Your task to perform on an android device: When is my next meeting? Image 0: 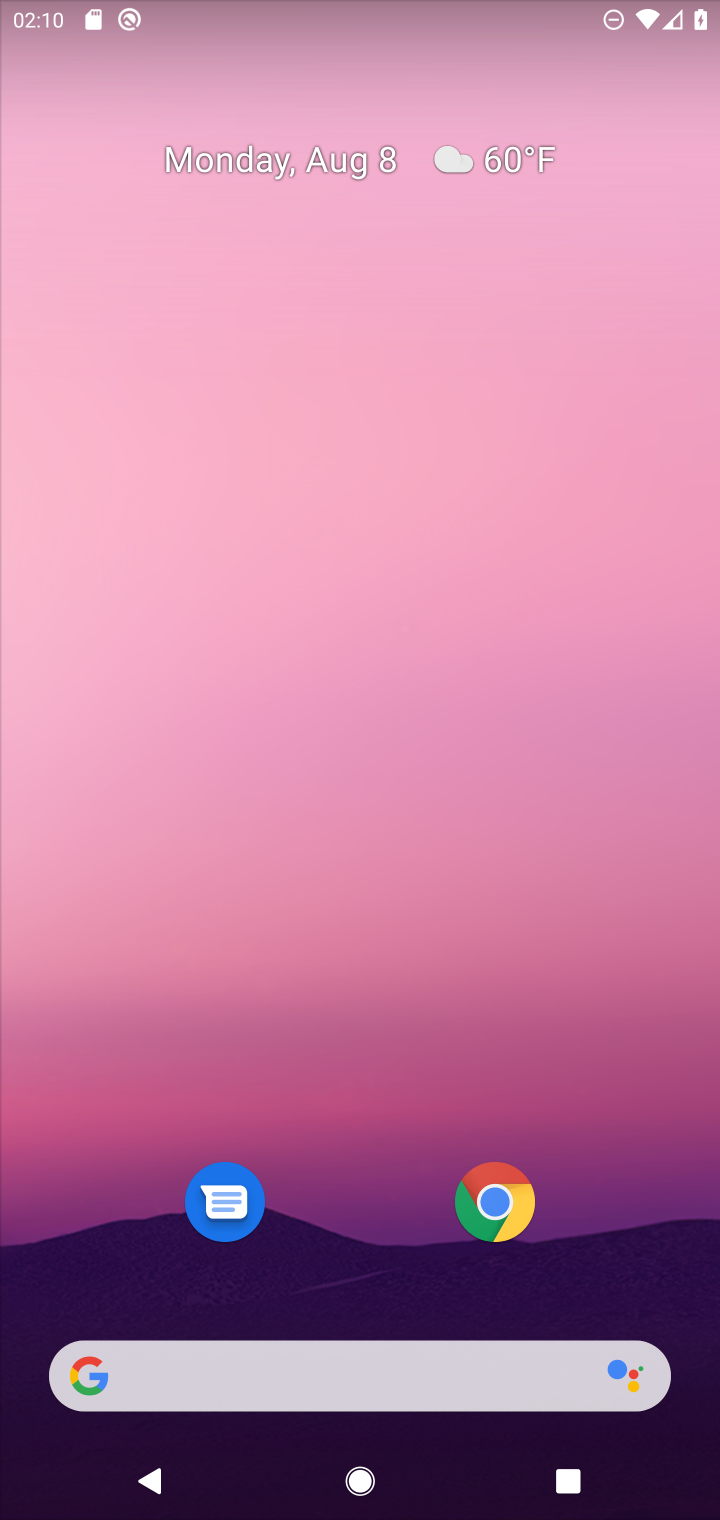
Step 0: press home button
Your task to perform on an android device: When is my next meeting? Image 1: 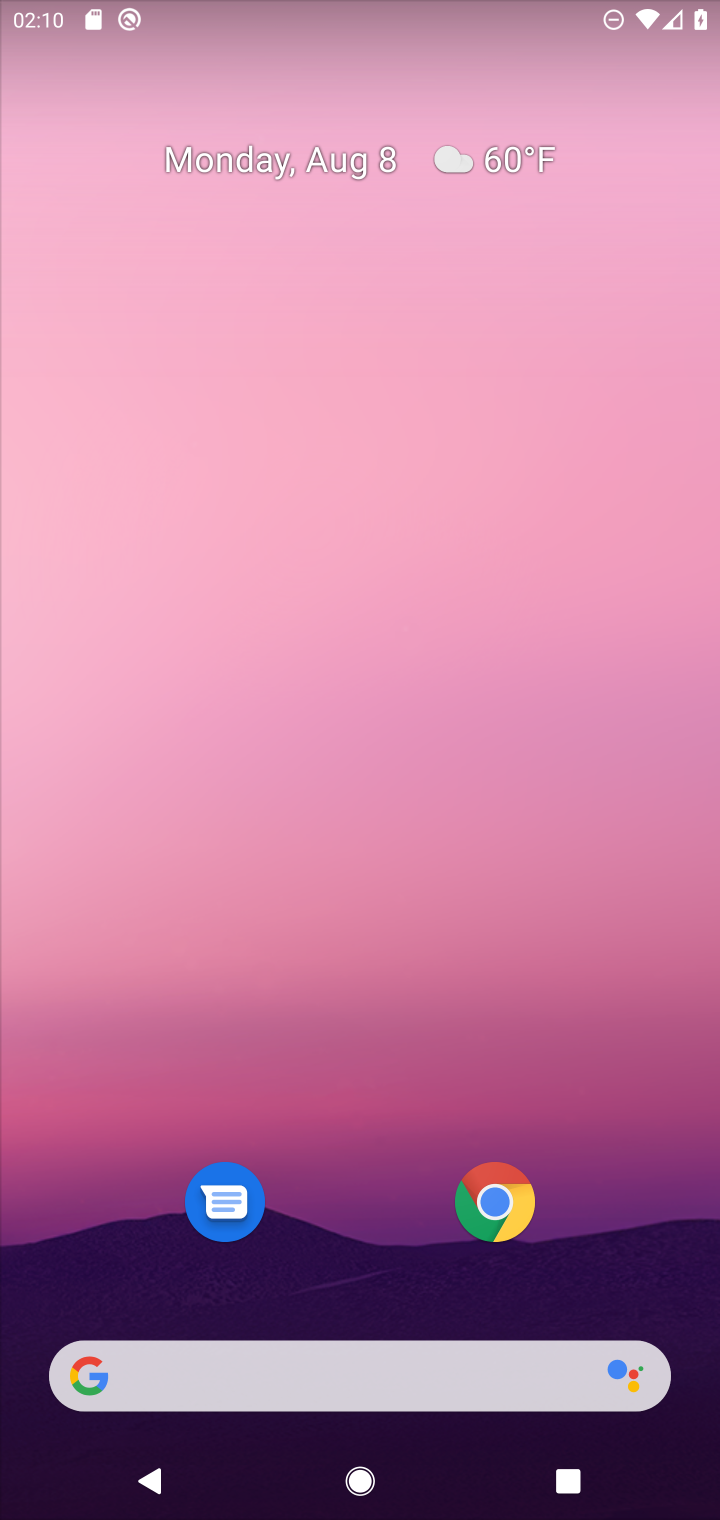
Step 1: drag from (602, 1266) to (630, 342)
Your task to perform on an android device: When is my next meeting? Image 2: 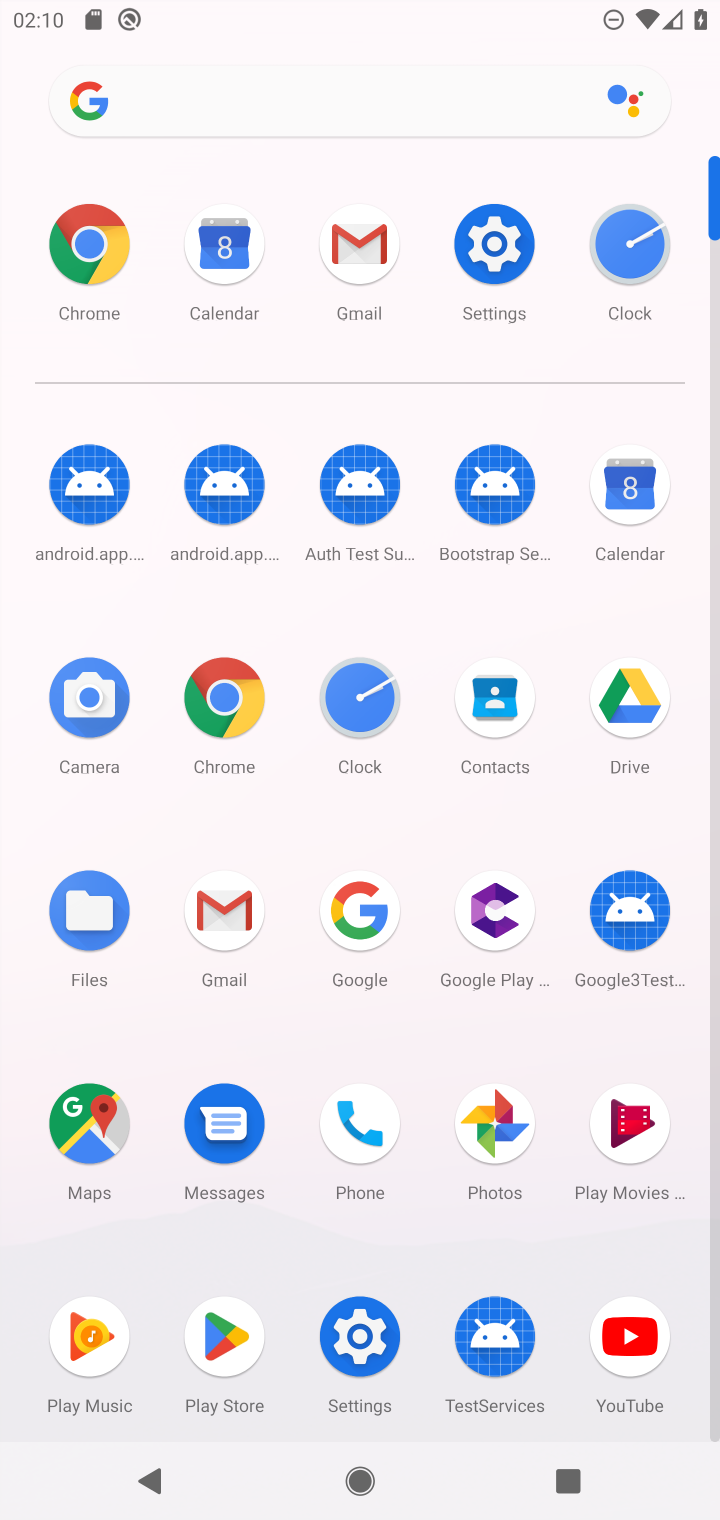
Step 2: click (626, 484)
Your task to perform on an android device: When is my next meeting? Image 3: 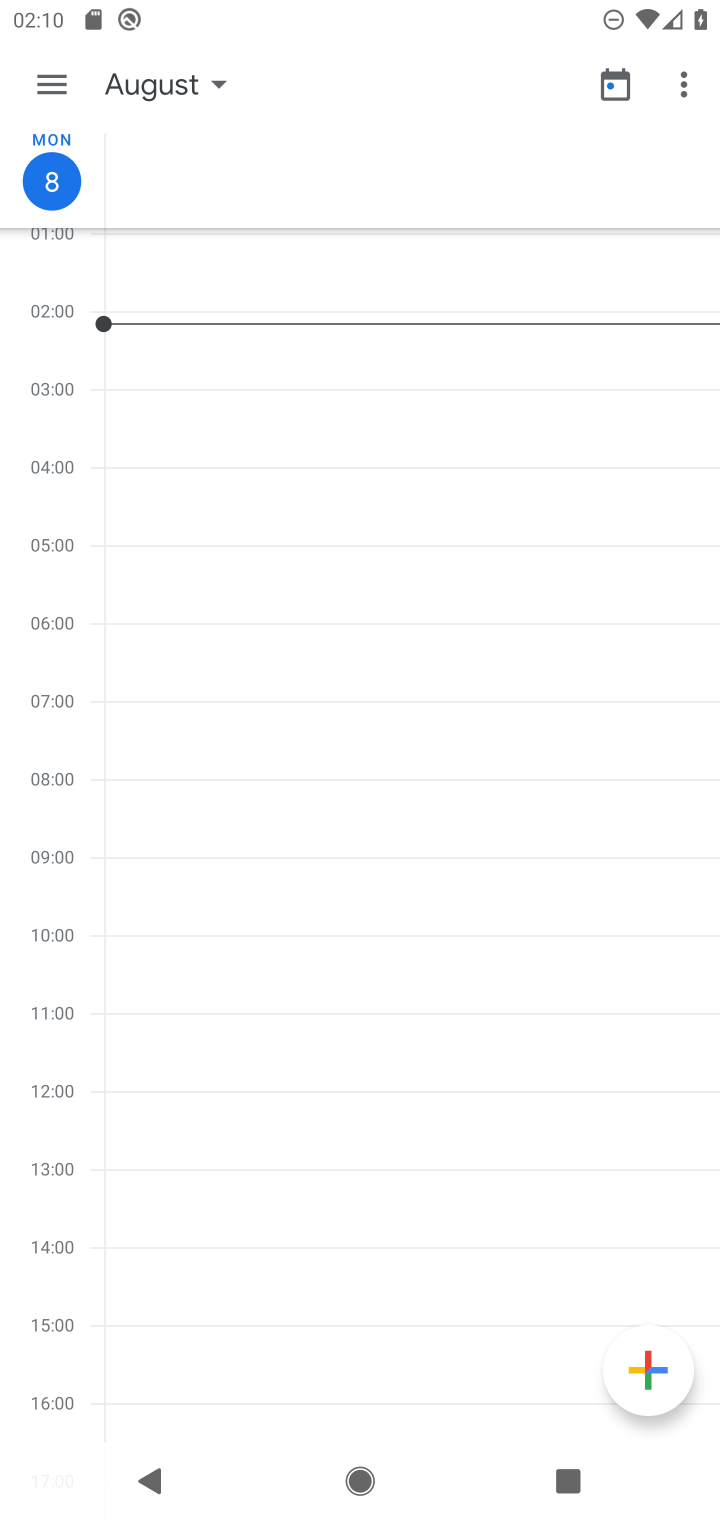
Step 3: click (39, 82)
Your task to perform on an android device: When is my next meeting? Image 4: 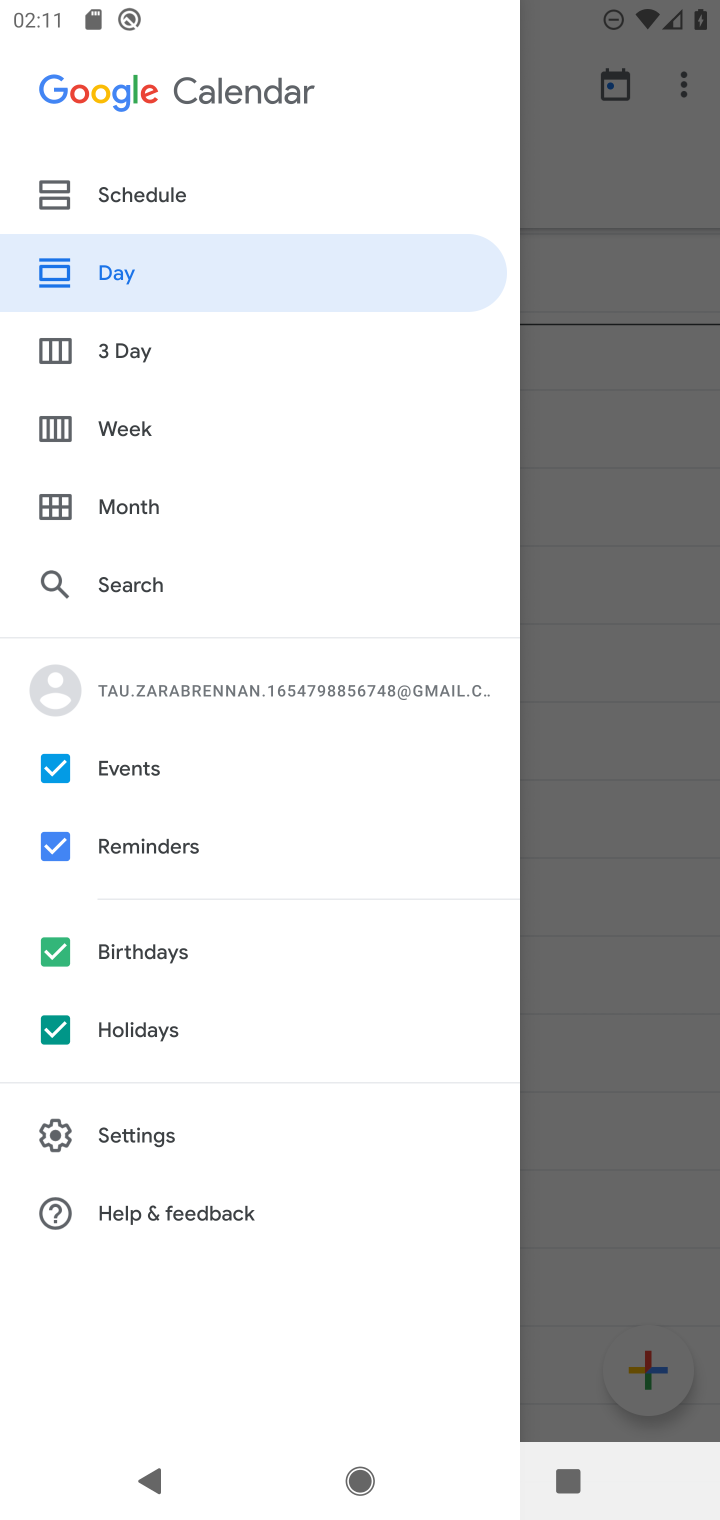
Step 4: click (159, 190)
Your task to perform on an android device: When is my next meeting? Image 5: 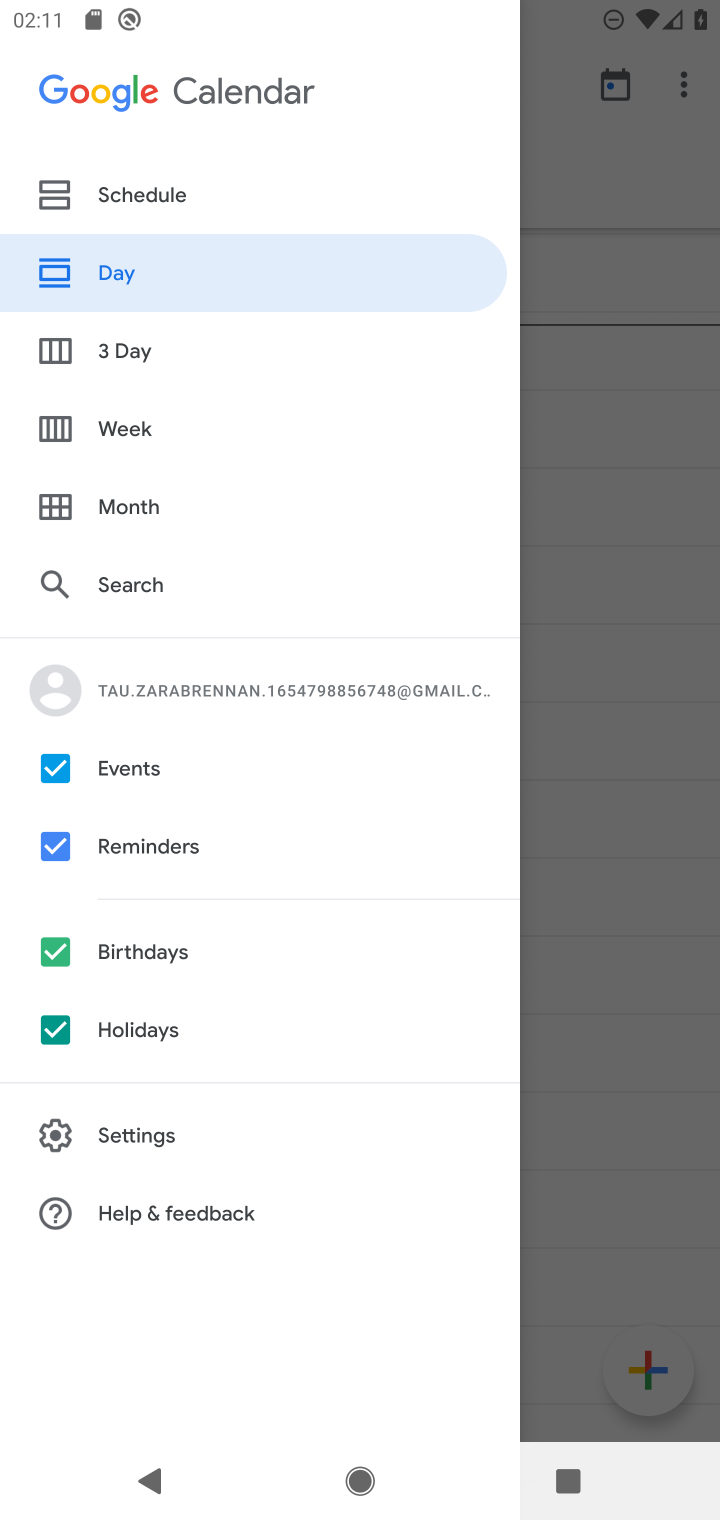
Step 5: click (159, 190)
Your task to perform on an android device: When is my next meeting? Image 6: 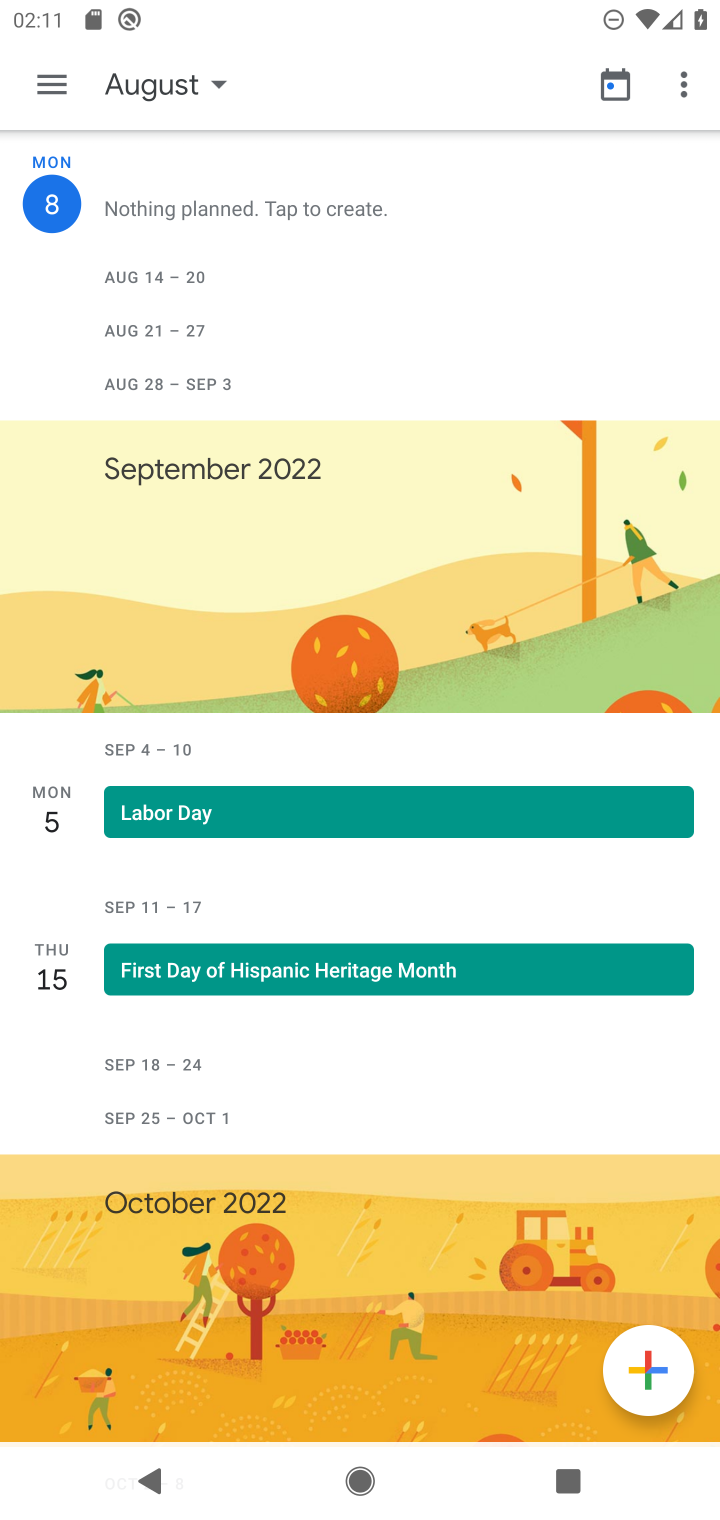
Step 6: task complete